Your task to perform on an android device: Go to Wikipedia Image 0: 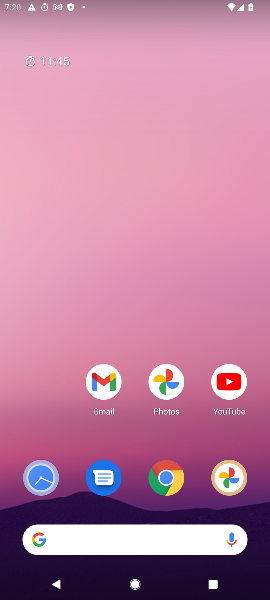
Step 0: drag from (148, 504) to (195, 224)
Your task to perform on an android device: Go to Wikipedia Image 1: 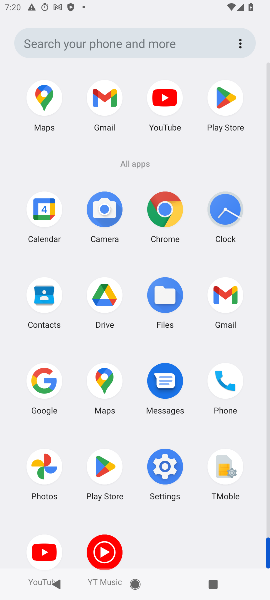
Step 1: click (155, 216)
Your task to perform on an android device: Go to Wikipedia Image 2: 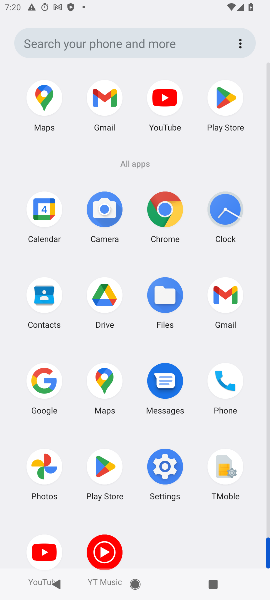
Step 2: click (155, 216)
Your task to perform on an android device: Go to Wikipedia Image 3: 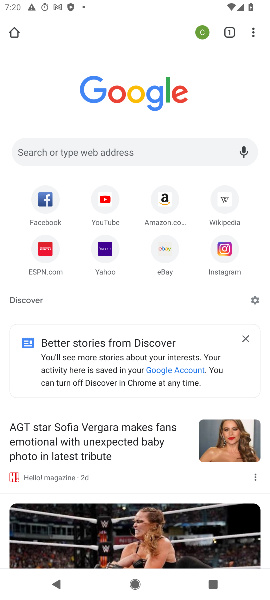
Step 3: click (228, 209)
Your task to perform on an android device: Go to Wikipedia Image 4: 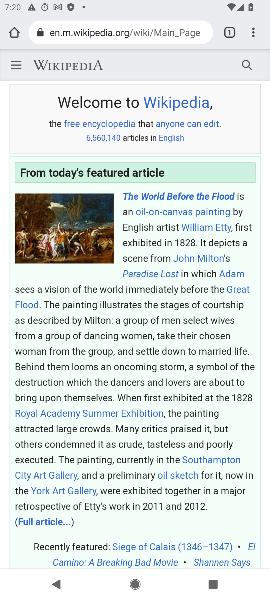
Step 4: task complete